Your task to perform on an android device: Go to calendar. Show me events next week Image 0: 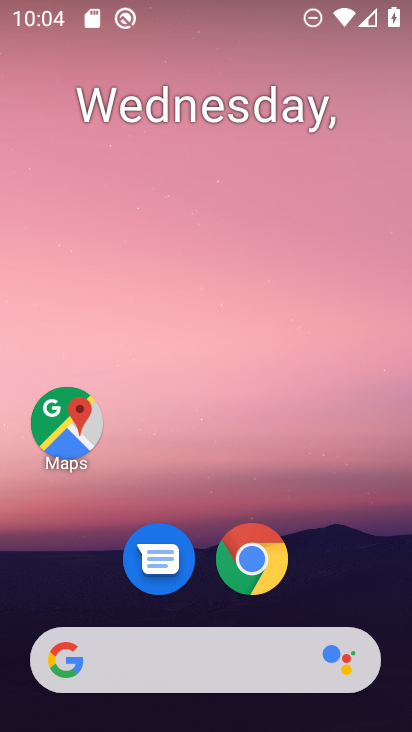
Step 0: drag from (371, 566) to (374, 279)
Your task to perform on an android device: Go to calendar. Show me events next week Image 1: 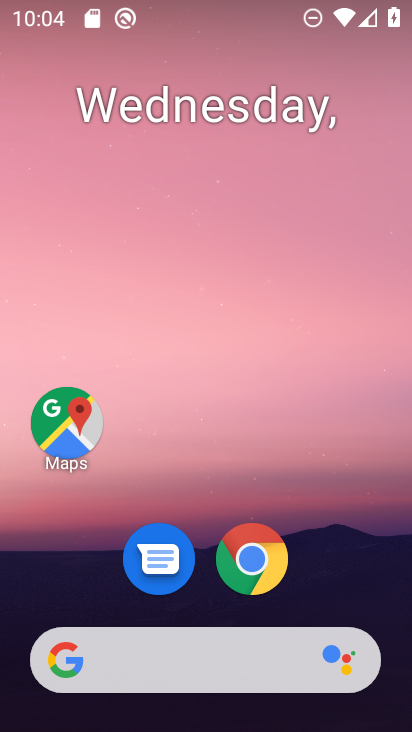
Step 1: drag from (388, 555) to (375, 188)
Your task to perform on an android device: Go to calendar. Show me events next week Image 2: 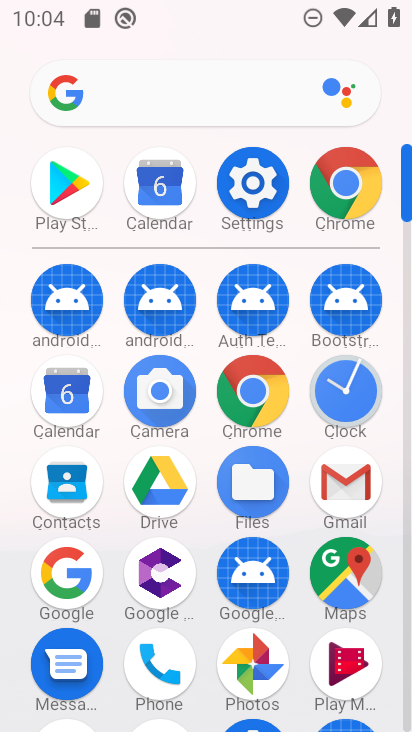
Step 2: click (78, 405)
Your task to perform on an android device: Go to calendar. Show me events next week Image 3: 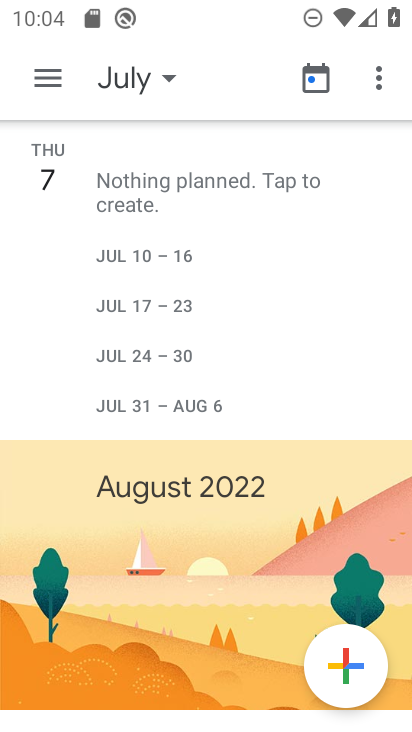
Step 3: click (169, 77)
Your task to perform on an android device: Go to calendar. Show me events next week Image 4: 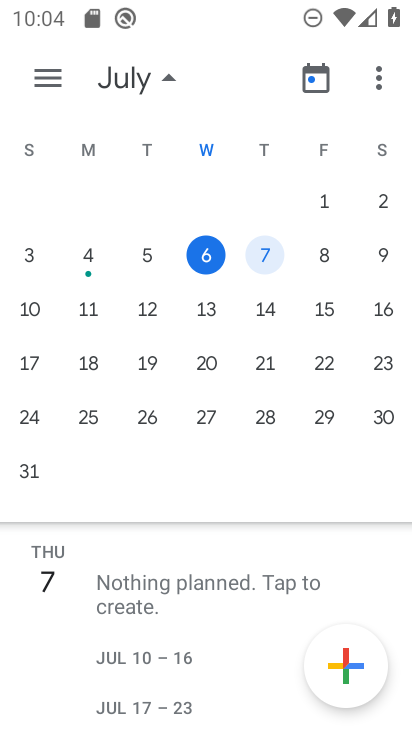
Step 4: click (92, 319)
Your task to perform on an android device: Go to calendar. Show me events next week Image 5: 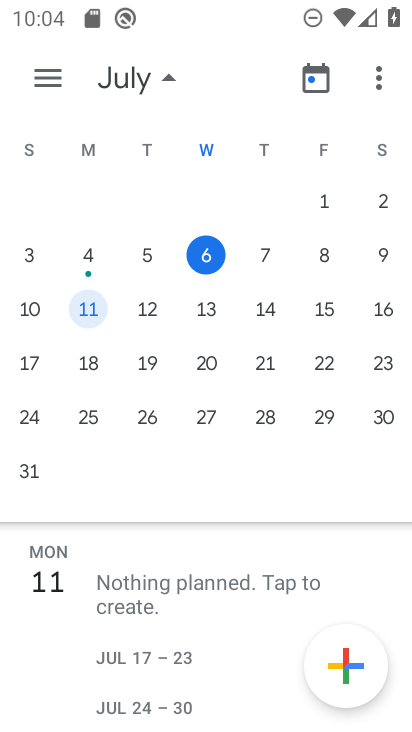
Step 5: task complete